Your task to perform on an android device: change notification settings in the gmail app Image 0: 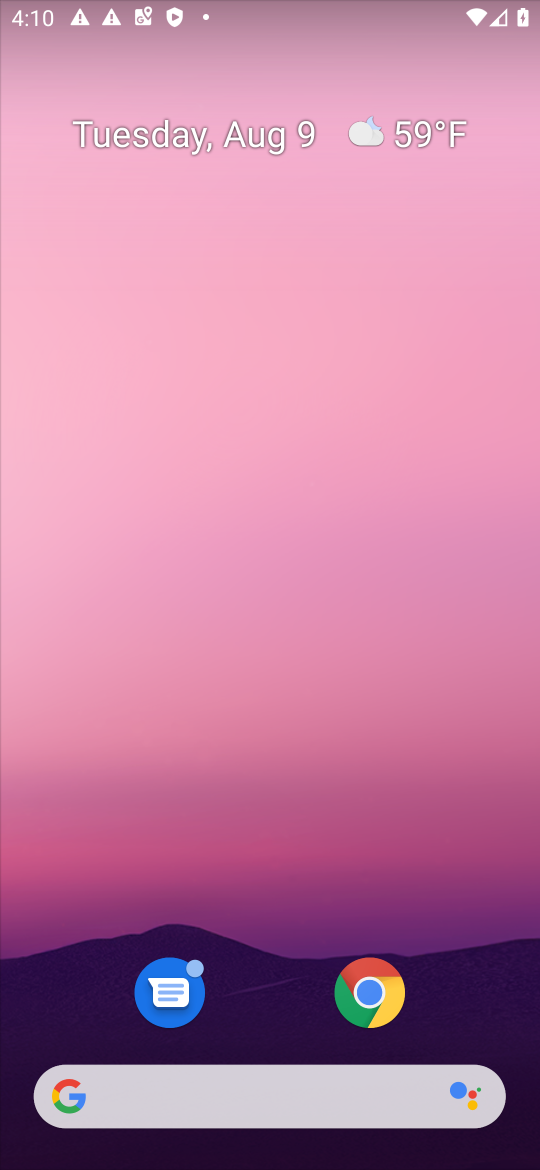
Step 0: drag from (363, 1091) to (263, 158)
Your task to perform on an android device: change notification settings in the gmail app Image 1: 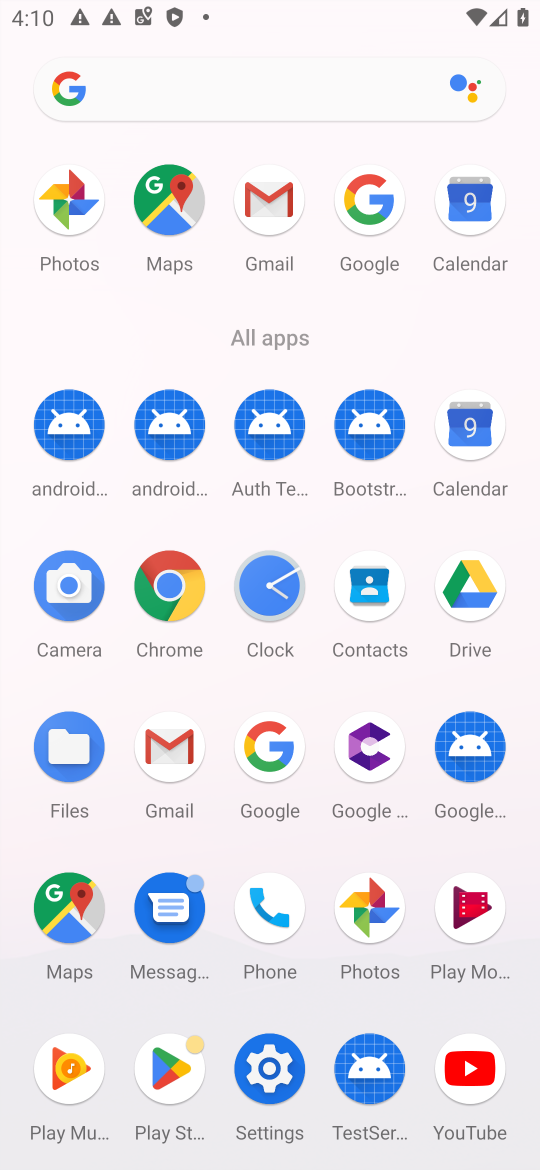
Step 1: click (156, 768)
Your task to perform on an android device: change notification settings in the gmail app Image 2: 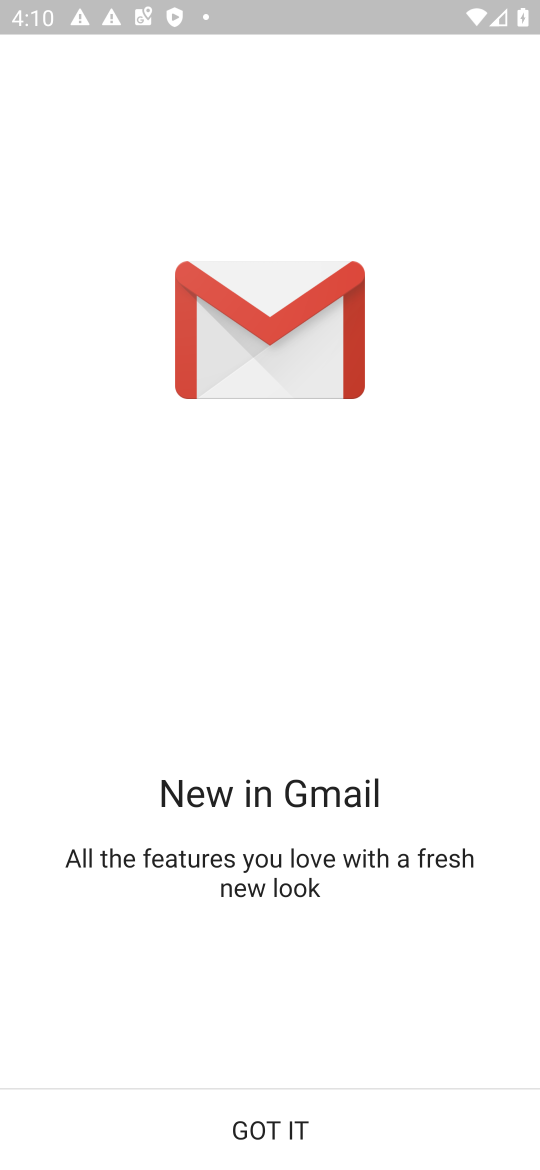
Step 2: click (219, 1153)
Your task to perform on an android device: change notification settings in the gmail app Image 3: 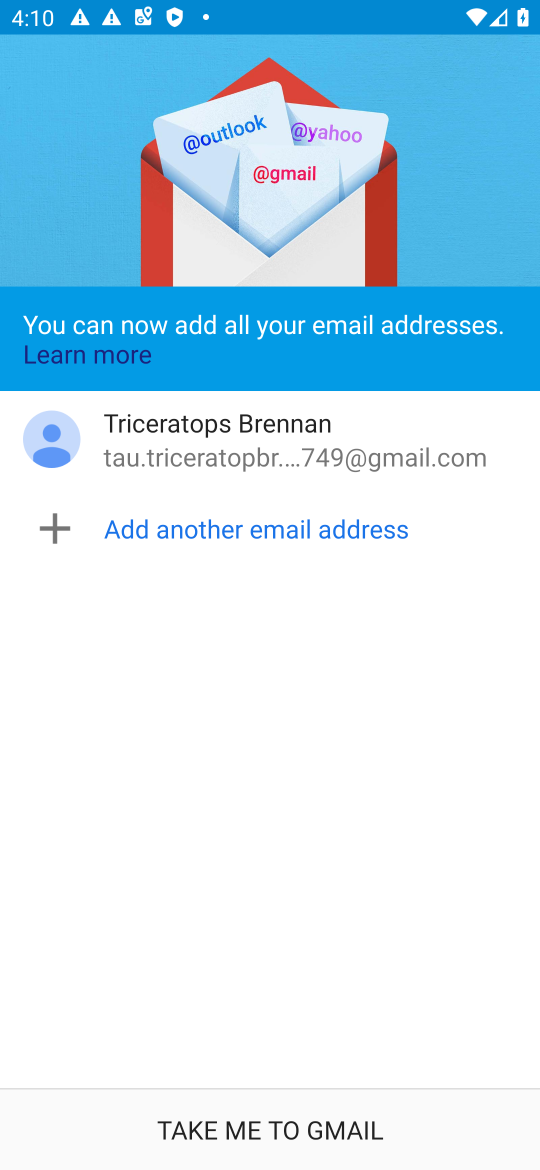
Step 3: click (219, 1153)
Your task to perform on an android device: change notification settings in the gmail app Image 4: 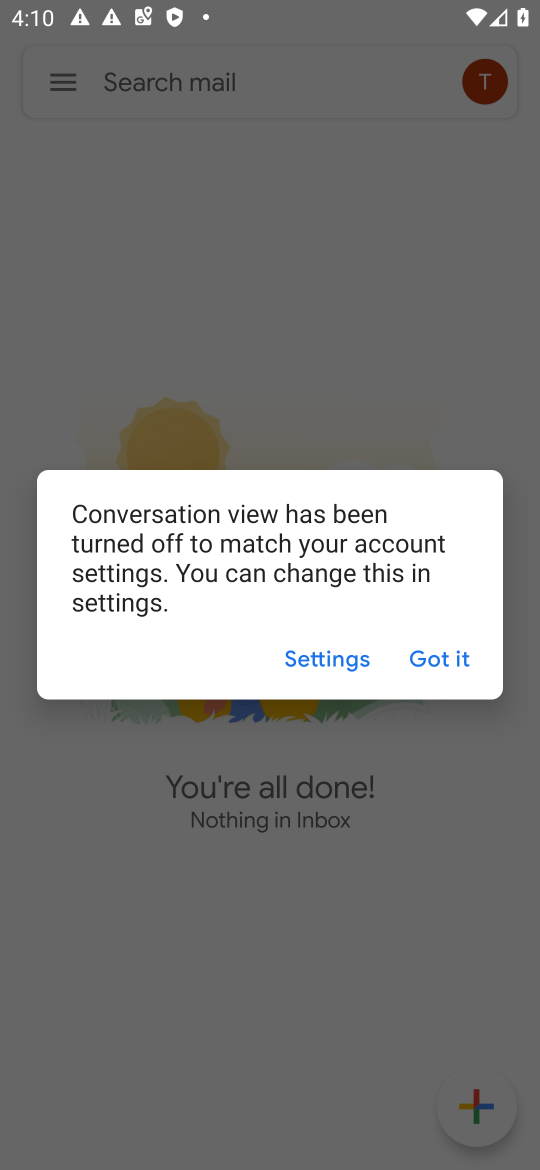
Step 4: click (428, 668)
Your task to perform on an android device: change notification settings in the gmail app Image 5: 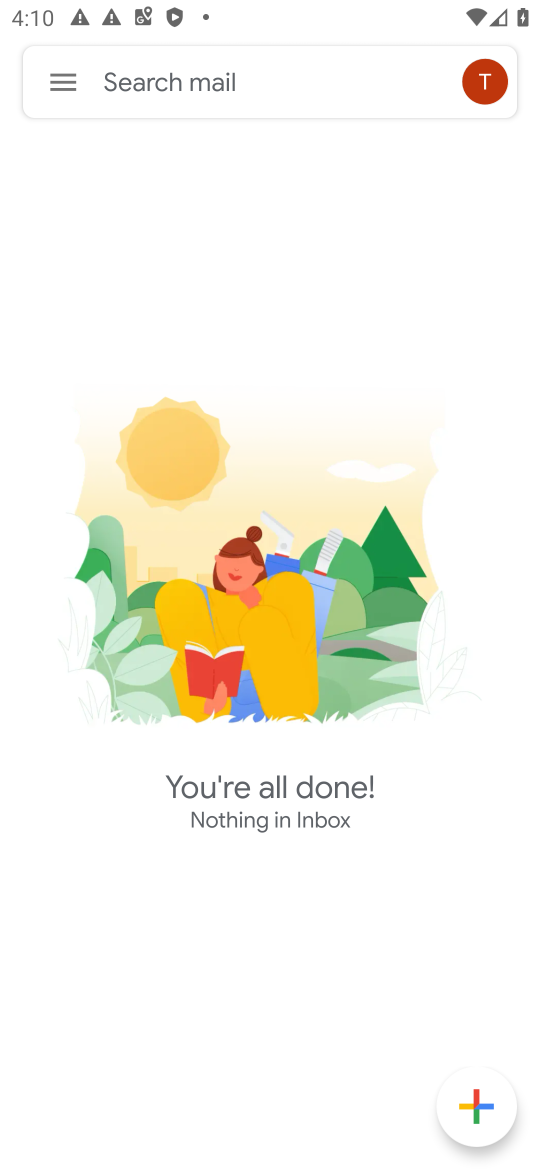
Step 5: click (91, 80)
Your task to perform on an android device: change notification settings in the gmail app Image 6: 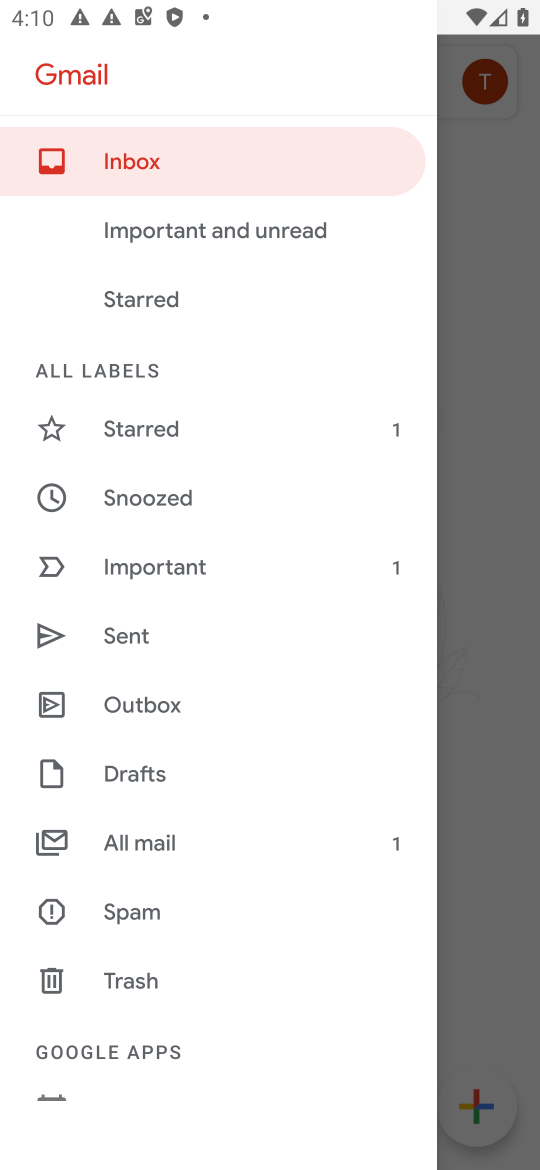
Step 6: drag from (241, 1078) to (135, 278)
Your task to perform on an android device: change notification settings in the gmail app Image 7: 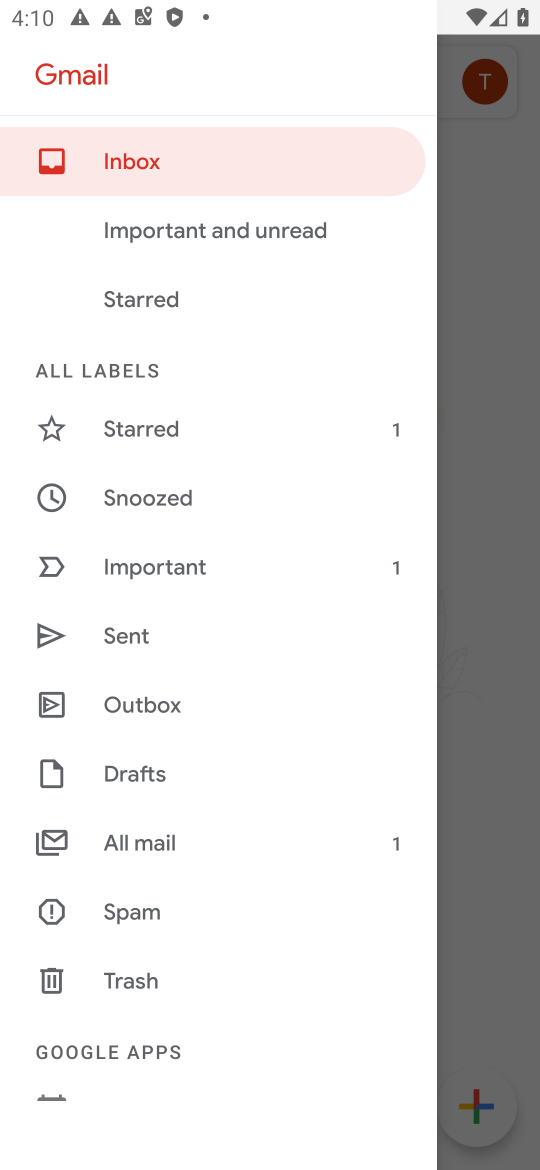
Step 7: drag from (242, 998) to (215, 531)
Your task to perform on an android device: change notification settings in the gmail app Image 8: 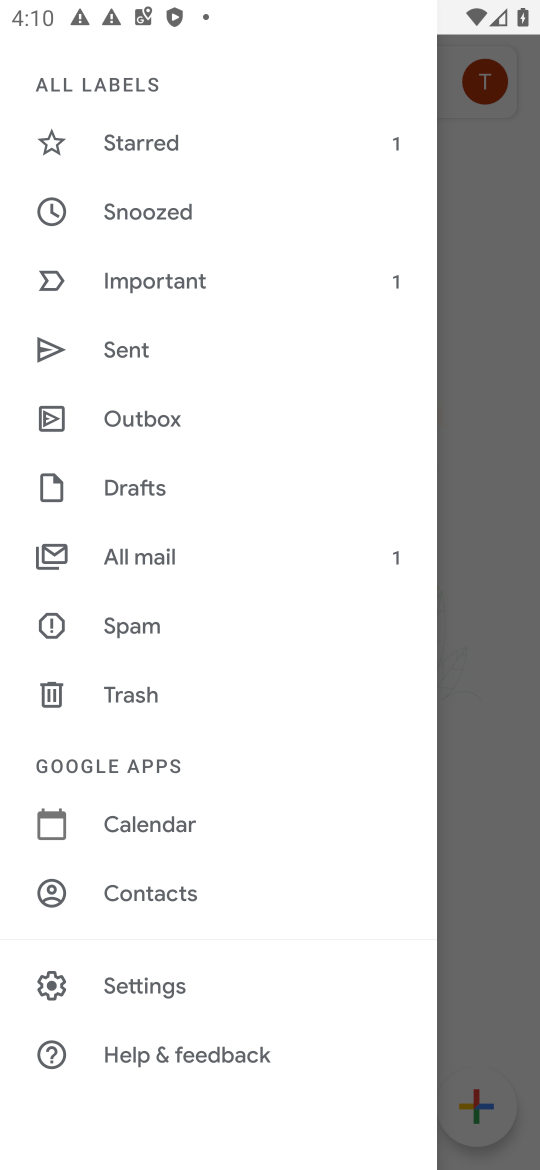
Step 8: click (131, 997)
Your task to perform on an android device: change notification settings in the gmail app Image 9: 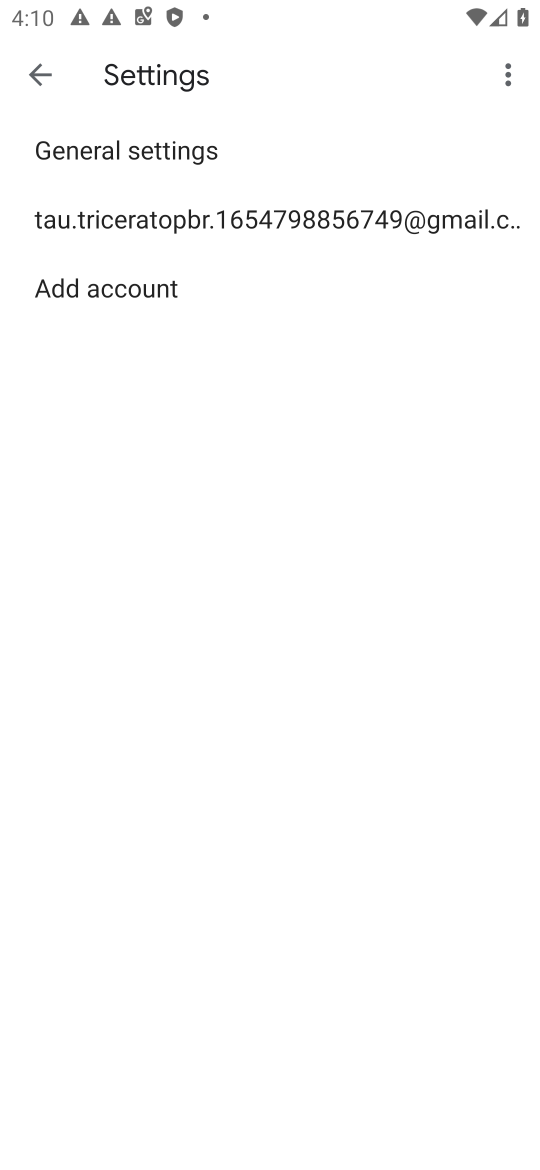
Step 9: click (283, 224)
Your task to perform on an android device: change notification settings in the gmail app Image 10: 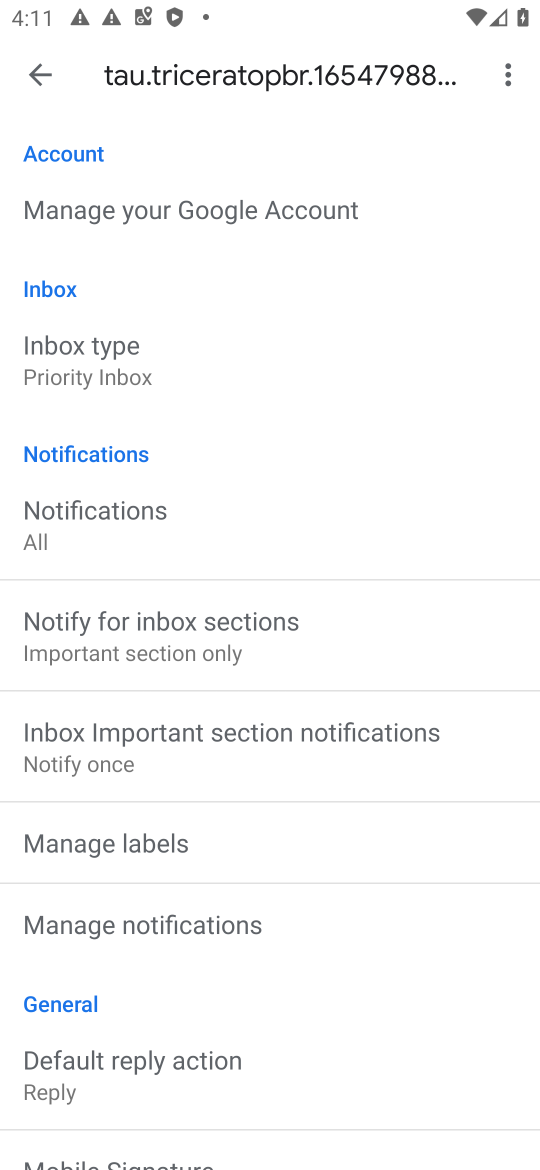
Step 10: click (157, 961)
Your task to perform on an android device: change notification settings in the gmail app Image 11: 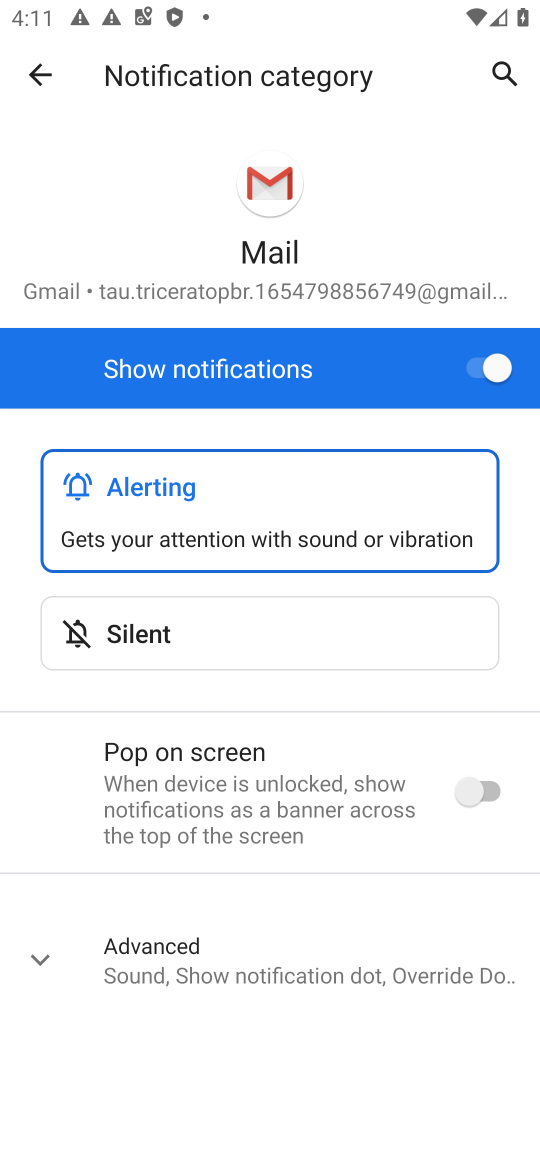
Step 11: task complete